Your task to perform on an android device: Open settings on Google Maps Image 0: 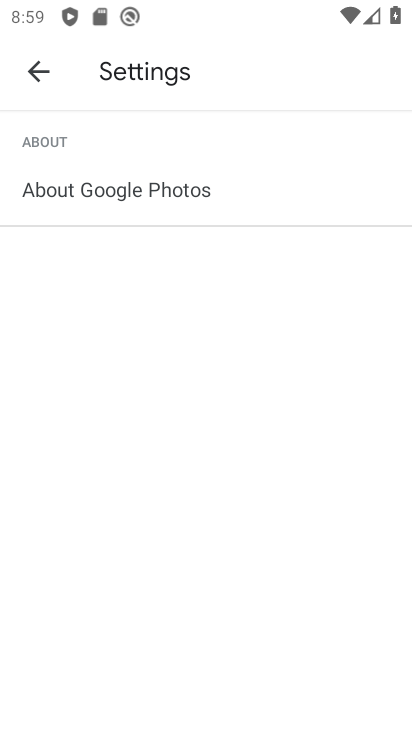
Step 0: press home button
Your task to perform on an android device: Open settings on Google Maps Image 1: 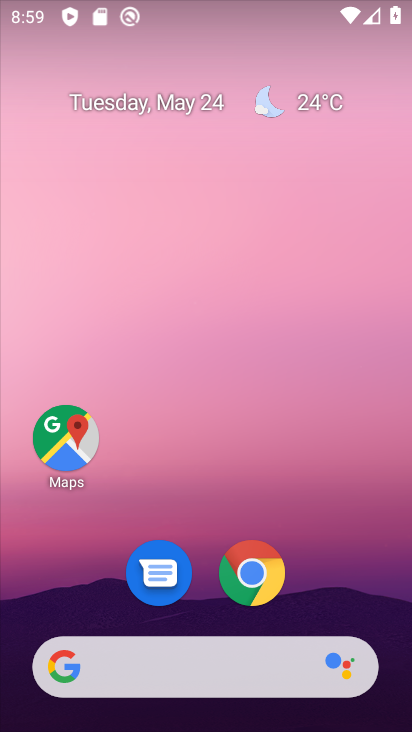
Step 1: click (64, 435)
Your task to perform on an android device: Open settings on Google Maps Image 2: 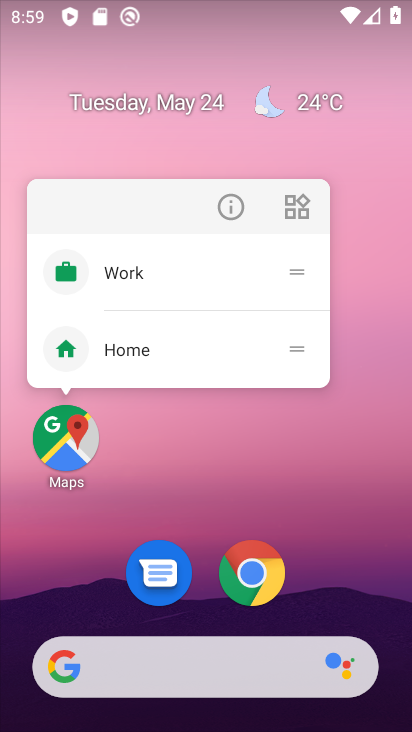
Step 2: click (65, 436)
Your task to perform on an android device: Open settings on Google Maps Image 3: 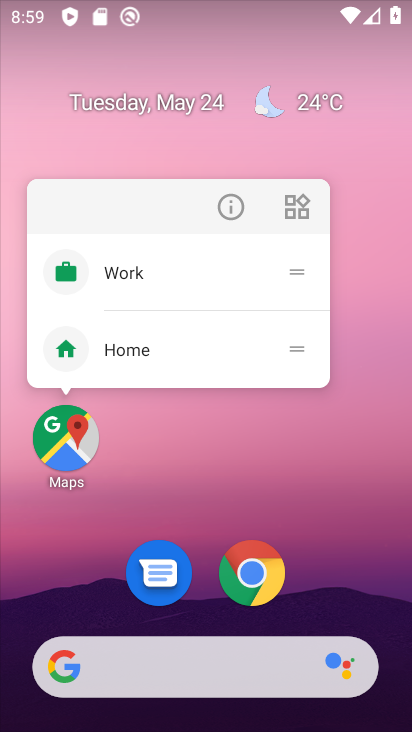
Step 3: click (74, 444)
Your task to perform on an android device: Open settings on Google Maps Image 4: 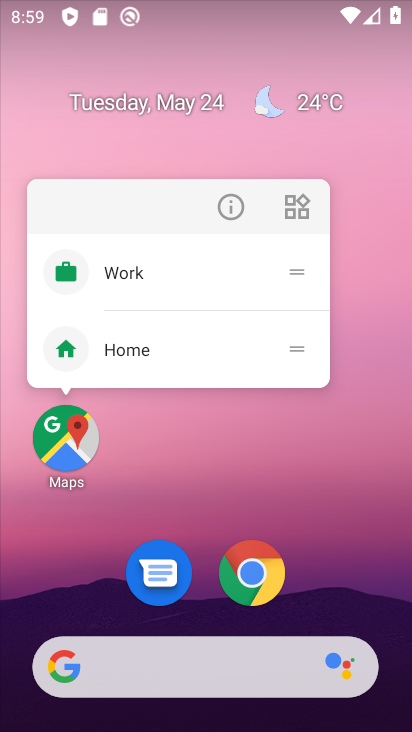
Step 4: click (70, 454)
Your task to perform on an android device: Open settings on Google Maps Image 5: 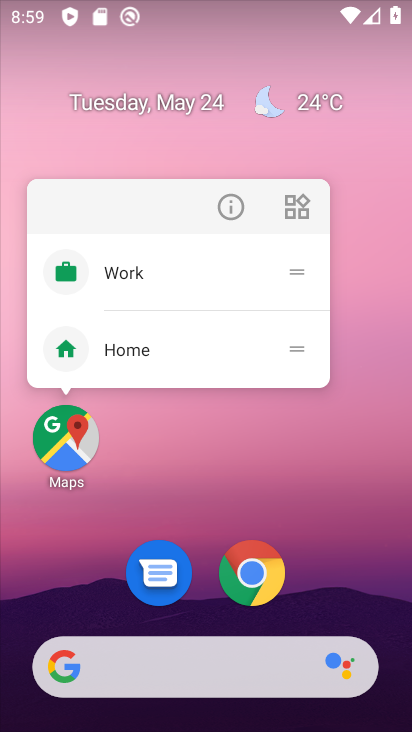
Step 5: click (75, 445)
Your task to perform on an android device: Open settings on Google Maps Image 6: 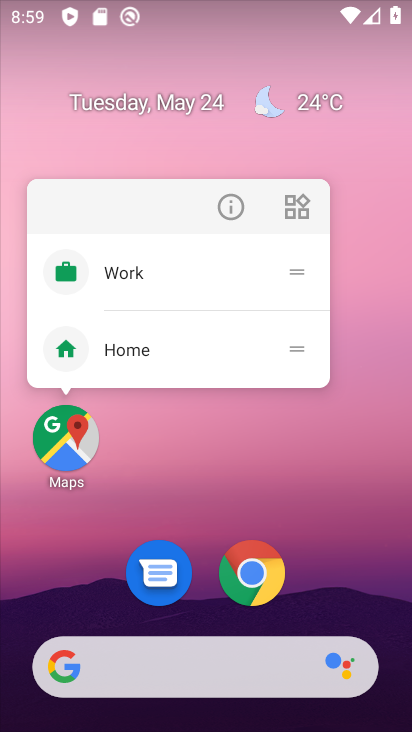
Step 6: click (81, 434)
Your task to perform on an android device: Open settings on Google Maps Image 7: 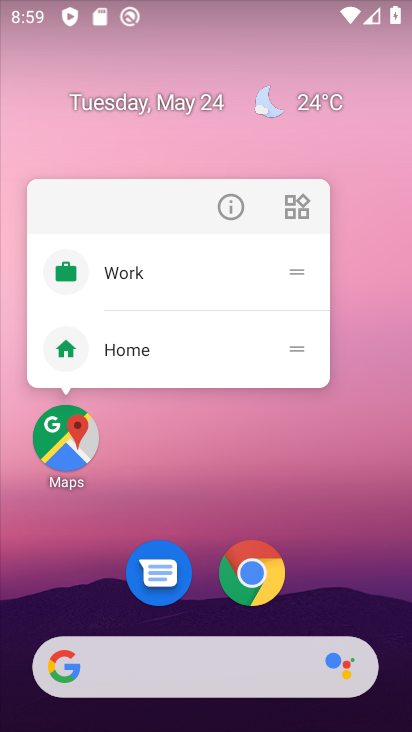
Step 7: click (60, 426)
Your task to perform on an android device: Open settings on Google Maps Image 8: 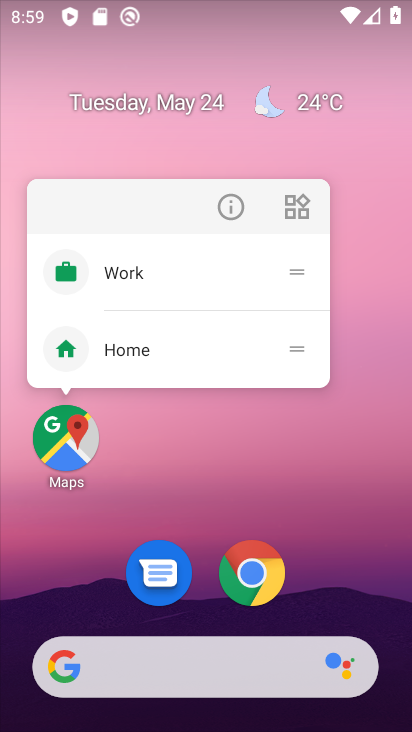
Step 8: click (33, 449)
Your task to perform on an android device: Open settings on Google Maps Image 9: 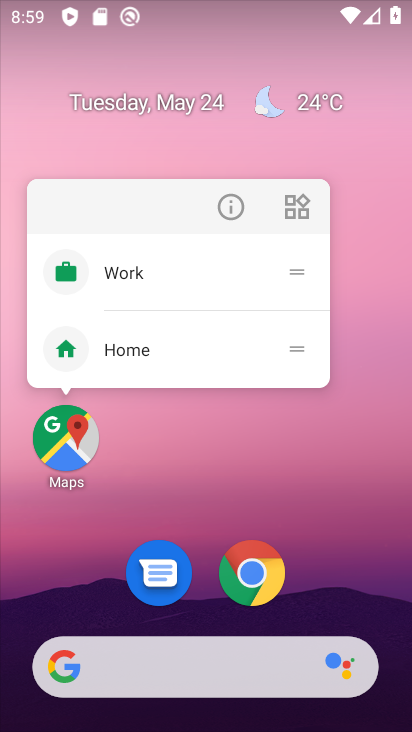
Step 9: click (59, 447)
Your task to perform on an android device: Open settings on Google Maps Image 10: 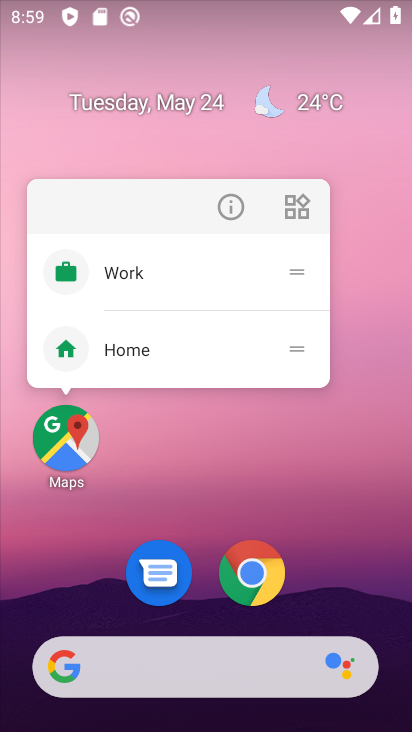
Step 10: click (63, 434)
Your task to perform on an android device: Open settings on Google Maps Image 11: 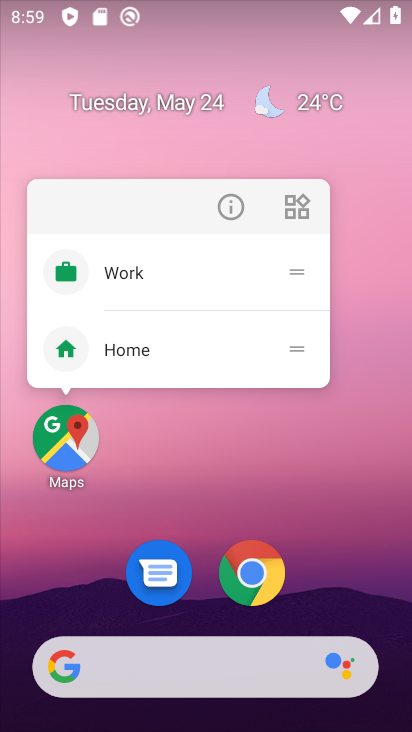
Step 11: click (47, 427)
Your task to perform on an android device: Open settings on Google Maps Image 12: 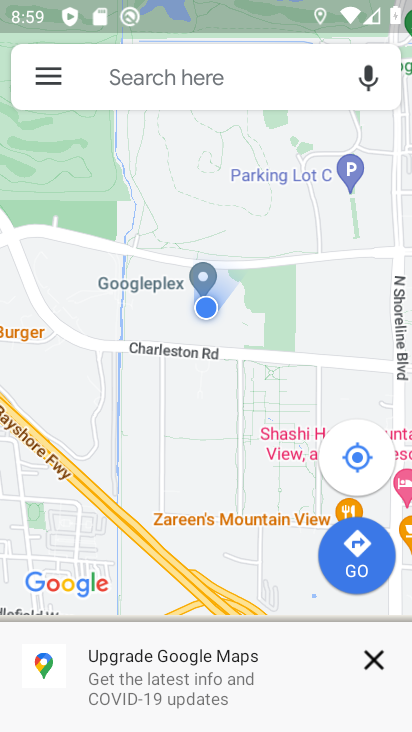
Step 12: click (372, 670)
Your task to perform on an android device: Open settings on Google Maps Image 13: 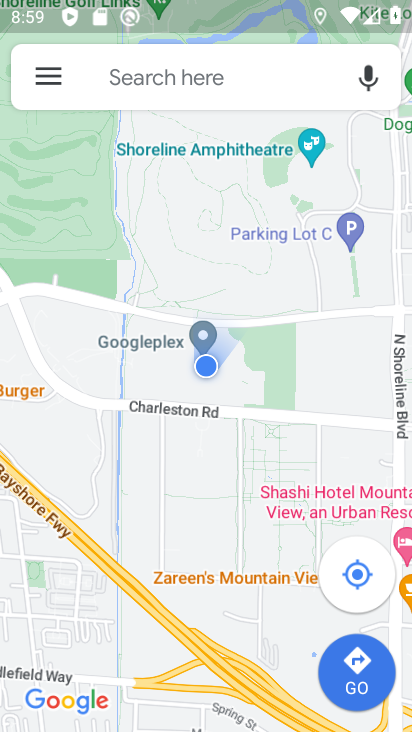
Step 13: click (65, 74)
Your task to perform on an android device: Open settings on Google Maps Image 14: 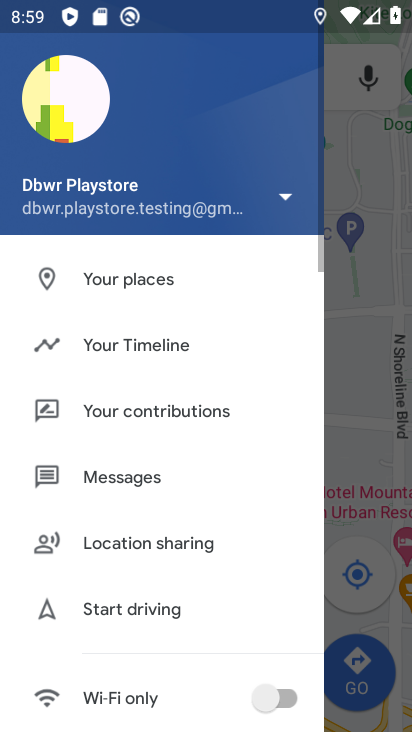
Step 14: drag from (97, 595) to (235, 187)
Your task to perform on an android device: Open settings on Google Maps Image 15: 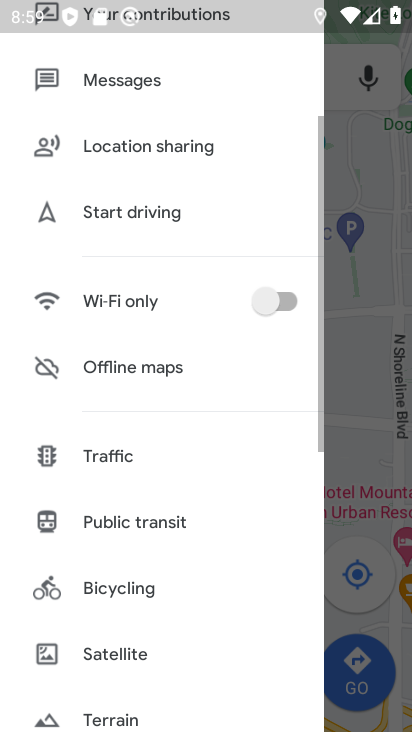
Step 15: drag from (159, 640) to (238, 247)
Your task to perform on an android device: Open settings on Google Maps Image 16: 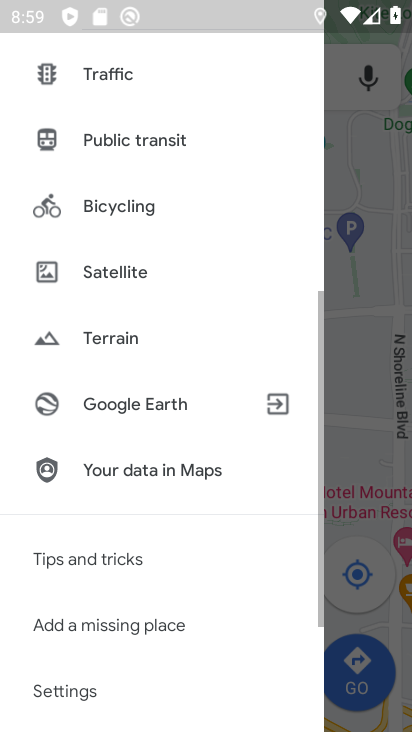
Step 16: drag from (180, 627) to (290, 285)
Your task to perform on an android device: Open settings on Google Maps Image 17: 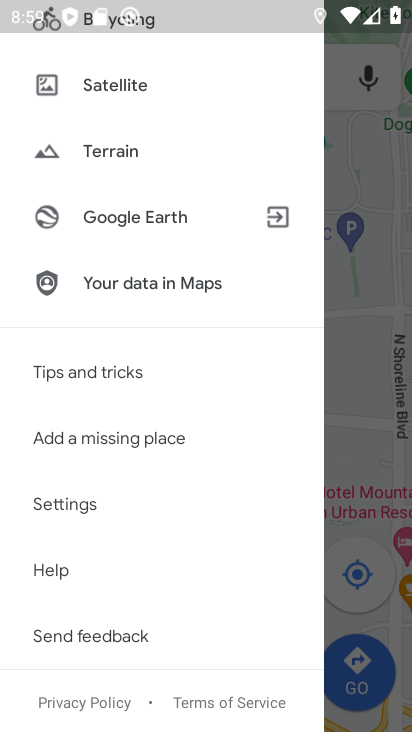
Step 17: click (121, 504)
Your task to perform on an android device: Open settings on Google Maps Image 18: 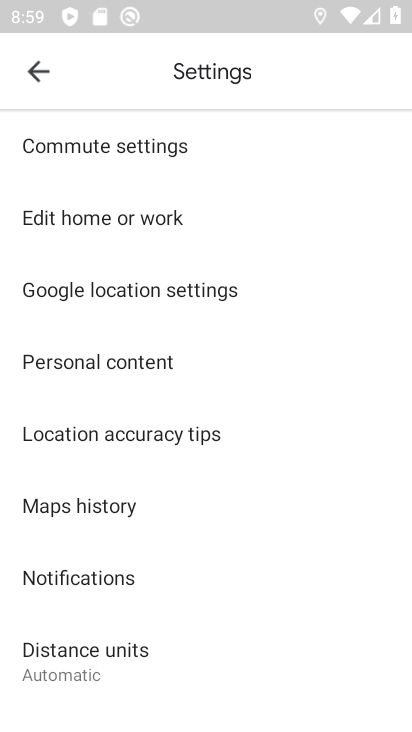
Step 18: task complete